Your task to perform on an android device: Go to battery settings Image 0: 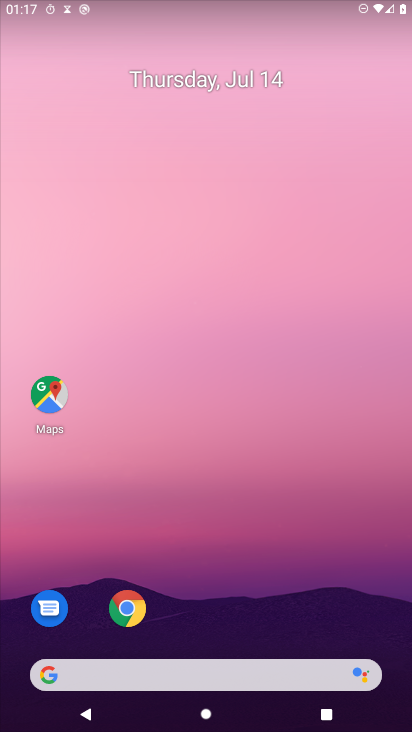
Step 0: press home button
Your task to perform on an android device: Go to battery settings Image 1: 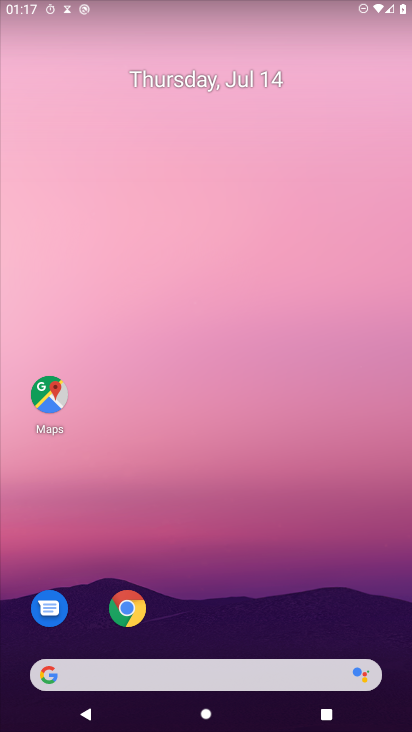
Step 1: drag from (264, 559) to (391, 2)
Your task to perform on an android device: Go to battery settings Image 2: 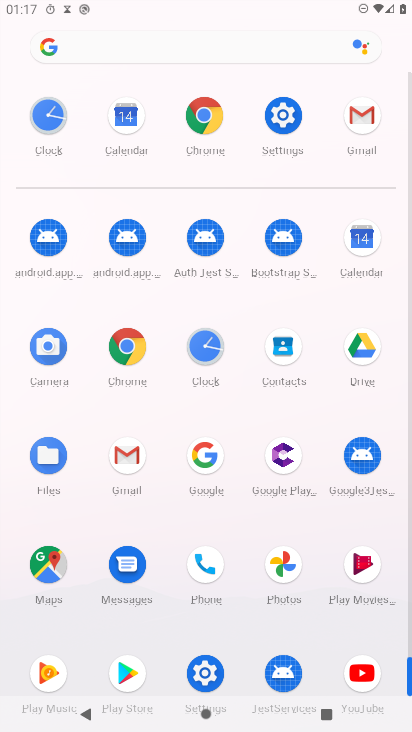
Step 2: click (290, 115)
Your task to perform on an android device: Go to battery settings Image 3: 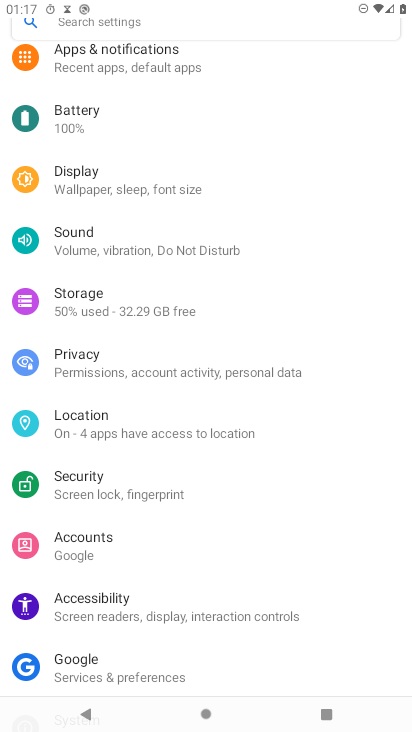
Step 3: click (95, 104)
Your task to perform on an android device: Go to battery settings Image 4: 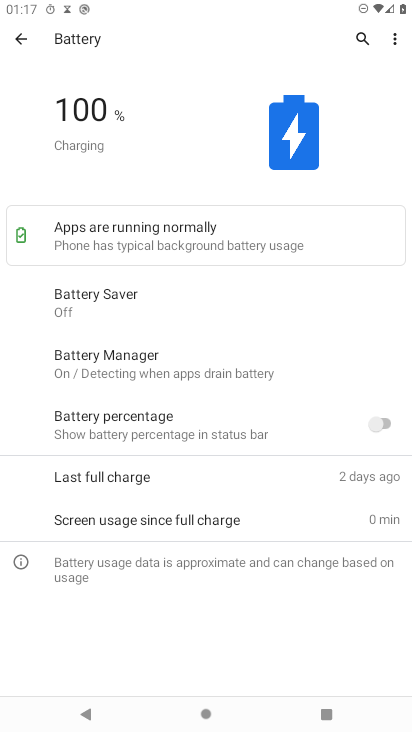
Step 4: task complete